Your task to perform on an android device: Go to location settings Image 0: 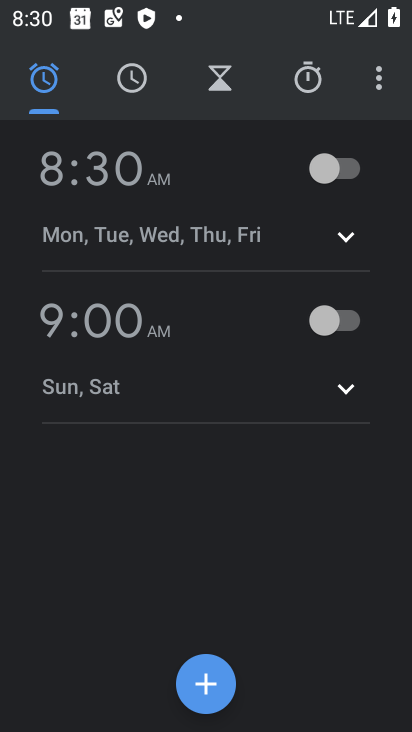
Step 0: press back button
Your task to perform on an android device: Go to location settings Image 1: 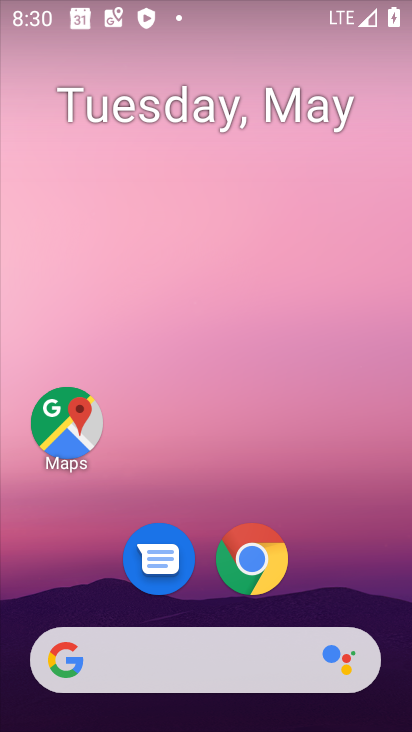
Step 1: drag from (200, 601) to (259, 39)
Your task to perform on an android device: Go to location settings Image 2: 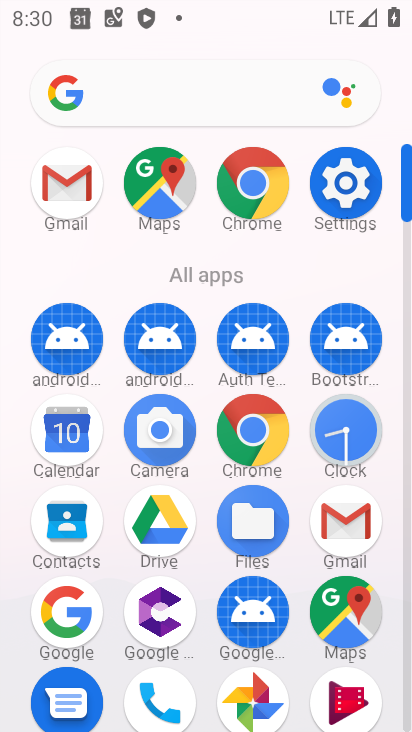
Step 2: click (336, 182)
Your task to perform on an android device: Go to location settings Image 3: 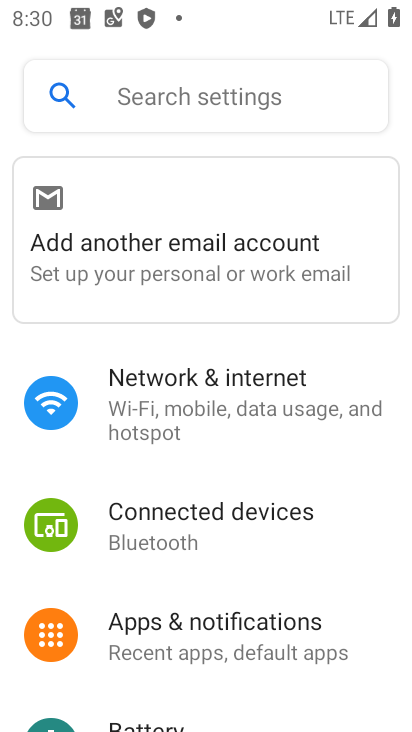
Step 3: drag from (173, 677) to (249, 149)
Your task to perform on an android device: Go to location settings Image 4: 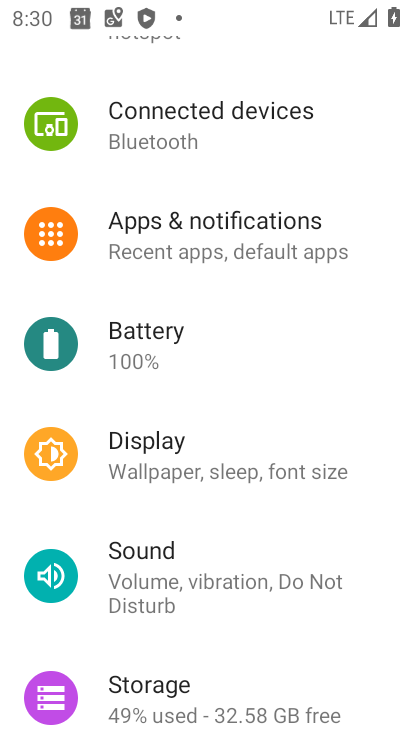
Step 4: drag from (225, 547) to (321, 94)
Your task to perform on an android device: Go to location settings Image 5: 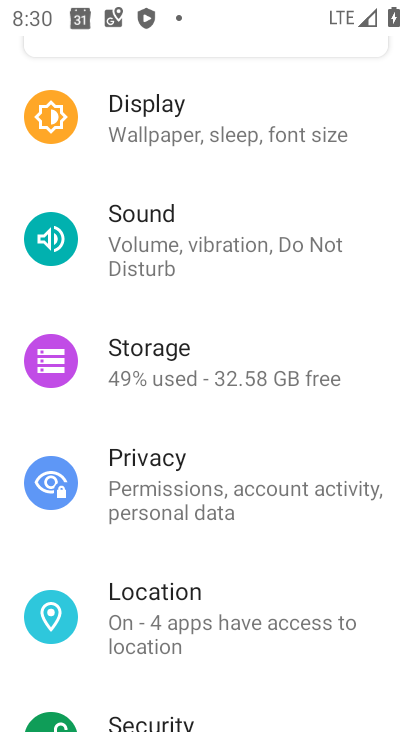
Step 5: click (204, 571)
Your task to perform on an android device: Go to location settings Image 6: 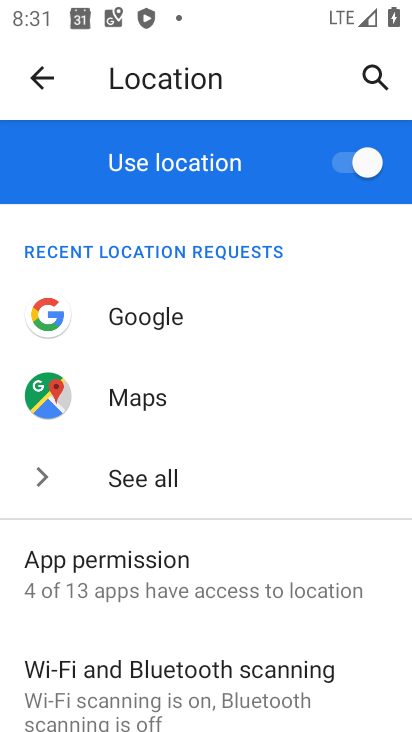
Step 6: task complete